Your task to perform on an android device: open app "Cash App" (install if not already installed) and go to login screen Image 0: 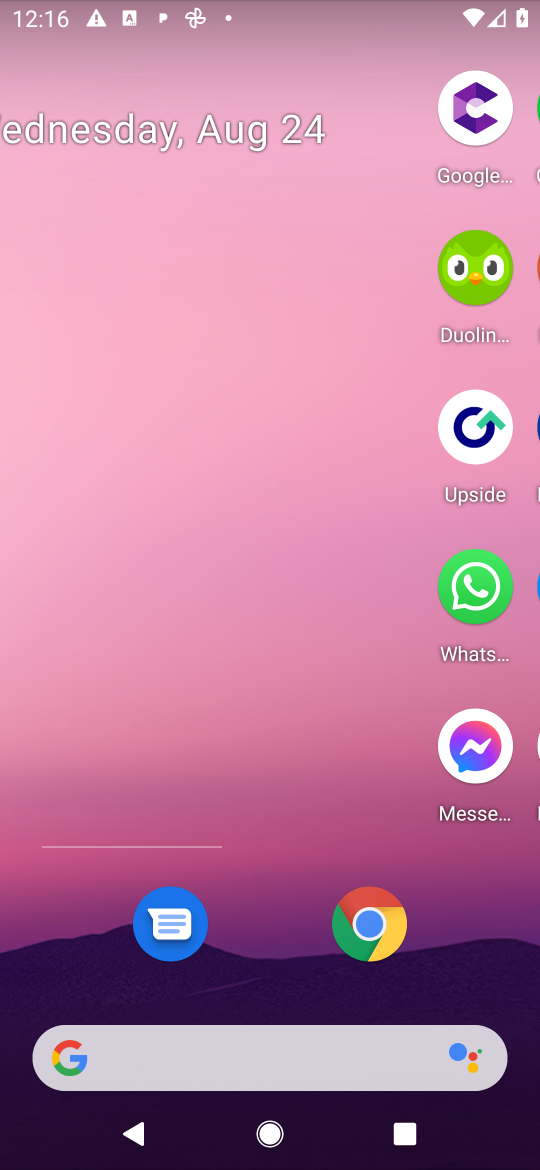
Step 0: press home button
Your task to perform on an android device: open app "Cash App" (install if not already installed) and go to login screen Image 1: 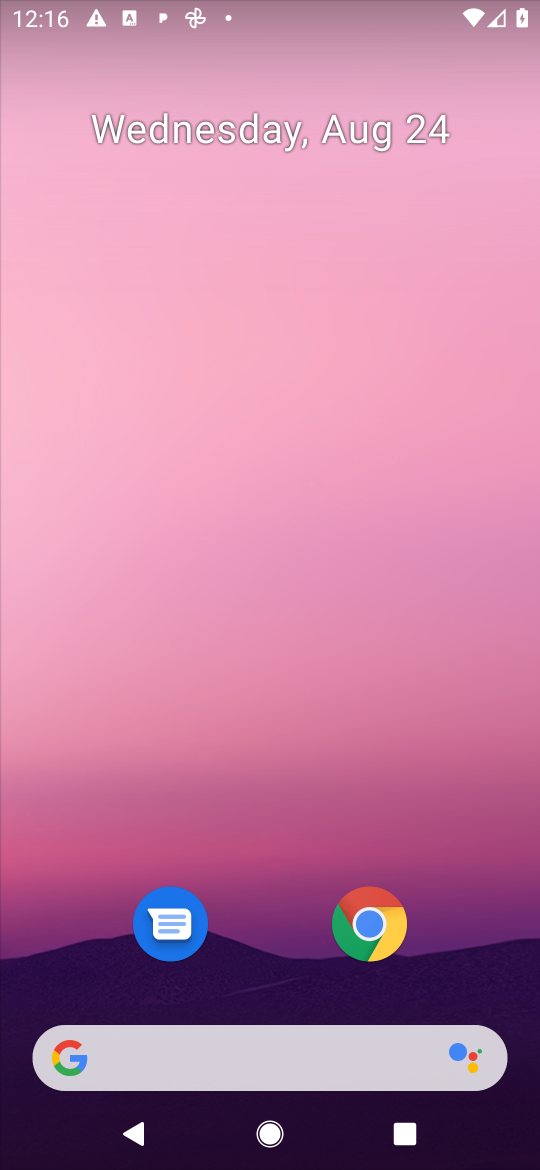
Step 1: drag from (478, 954) to (507, 4)
Your task to perform on an android device: open app "Cash App" (install if not already installed) and go to login screen Image 2: 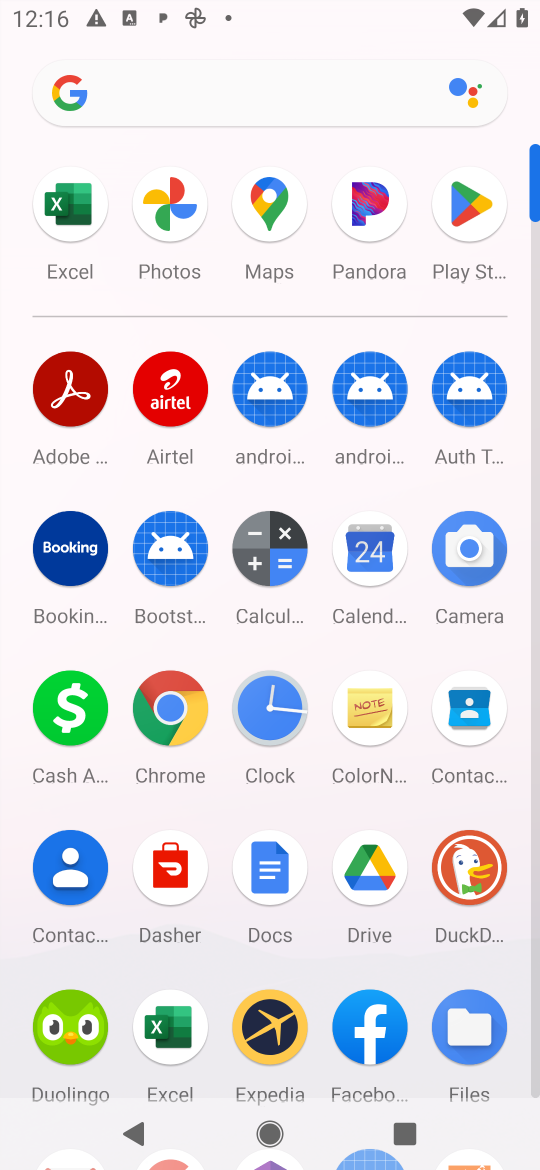
Step 2: click (466, 211)
Your task to perform on an android device: open app "Cash App" (install if not already installed) and go to login screen Image 3: 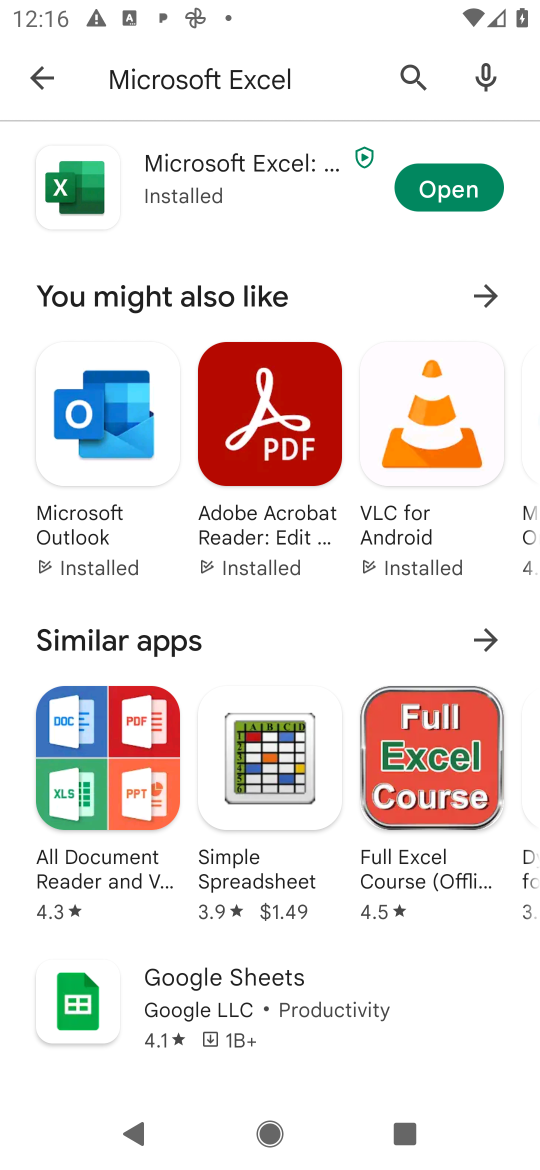
Step 3: press back button
Your task to perform on an android device: open app "Cash App" (install if not already installed) and go to login screen Image 4: 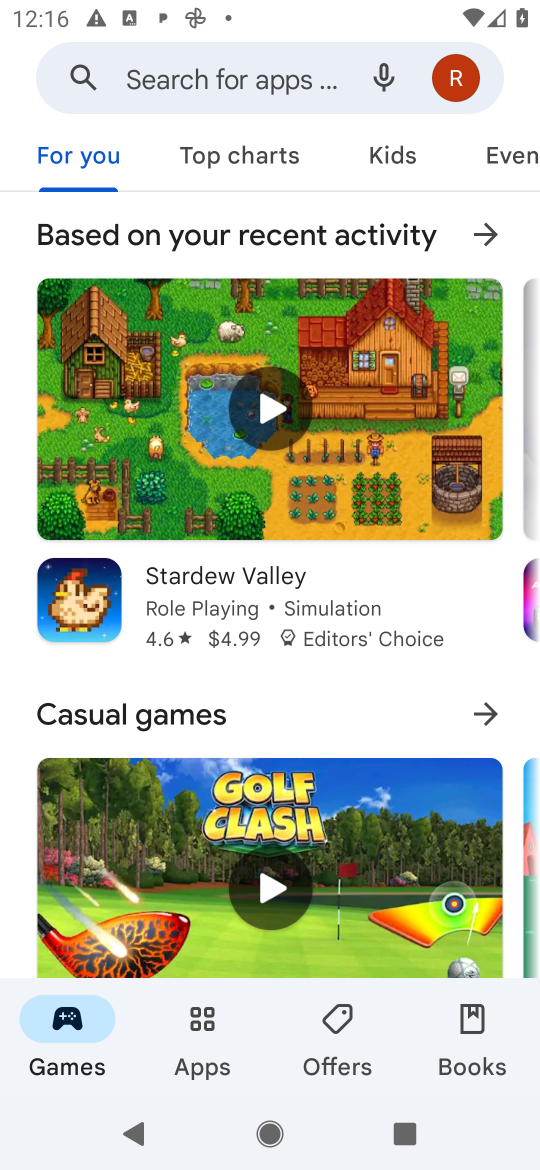
Step 4: click (228, 76)
Your task to perform on an android device: open app "Cash App" (install if not already installed) and go to login screen Image 5: 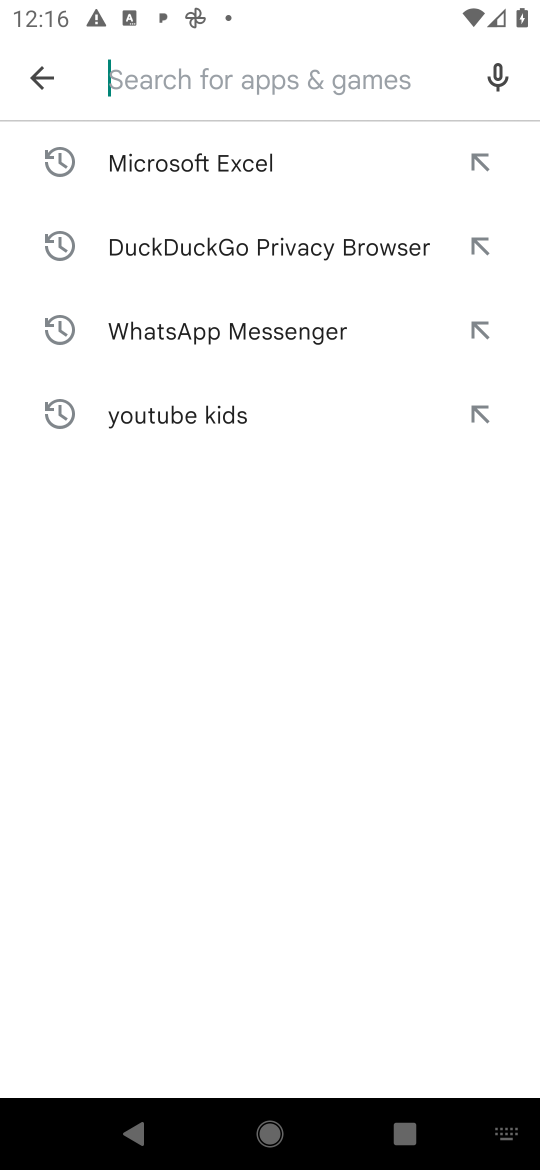
Step 5: type "Cash App"
Your task to perform on an android device: open app "Cash App" (install if not already installed) and go to login screen Image 6: 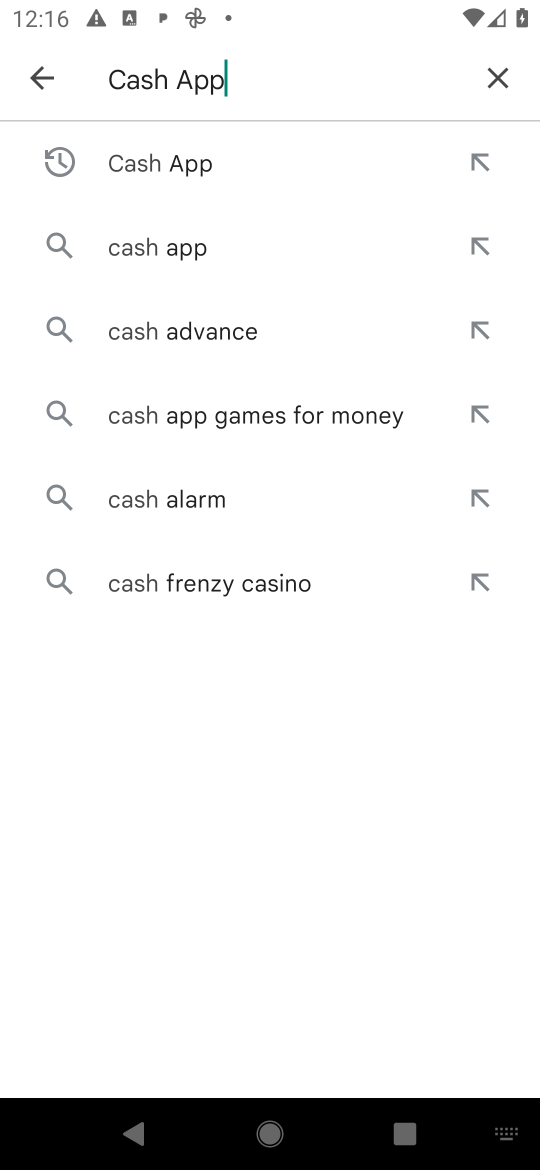
Step 6: press enter
Your task to perform on an android device: open app "Cash App" (install if not already installed) and go to login screen Image 7: 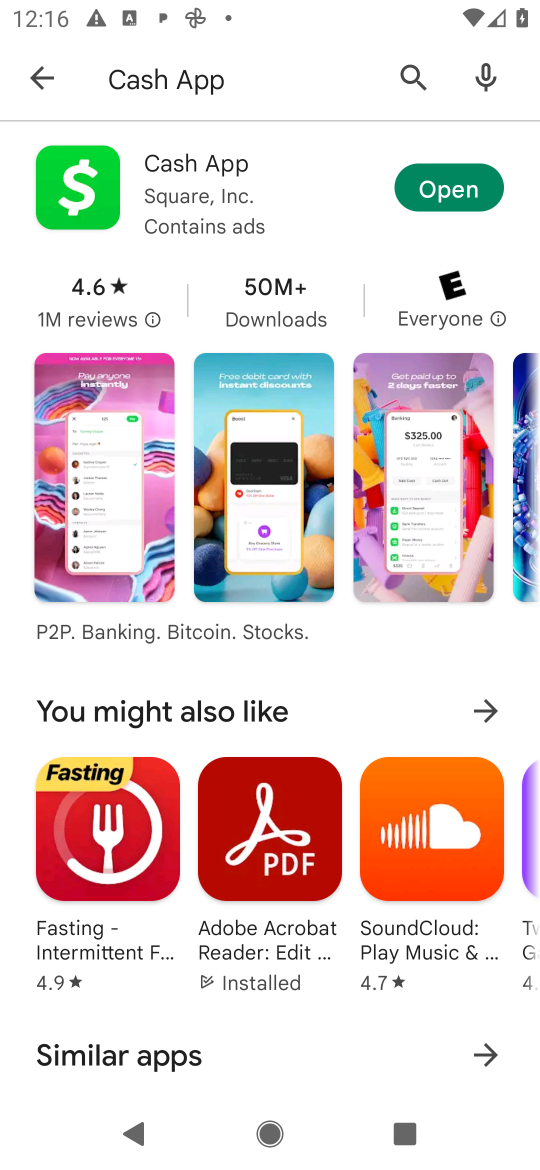
Step 7: click (467, 194)
Your task to perform on an android device: open app "Cash App" (install if not already installed) and go to login screen Image 8: 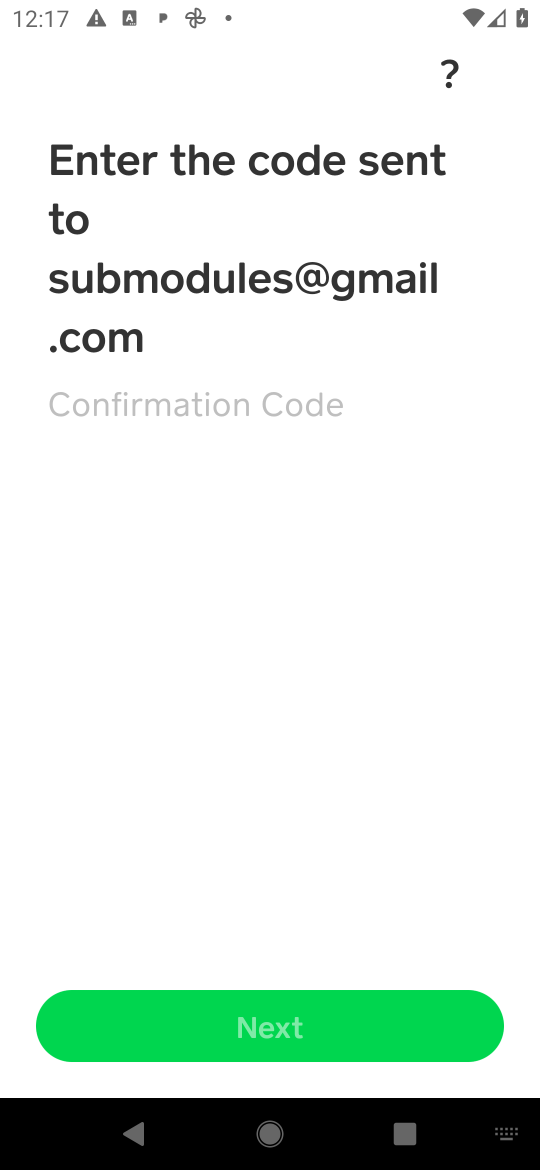
Step 8: task complete